Your task to perform on an android device: toggle improve location accuracy Image 0: 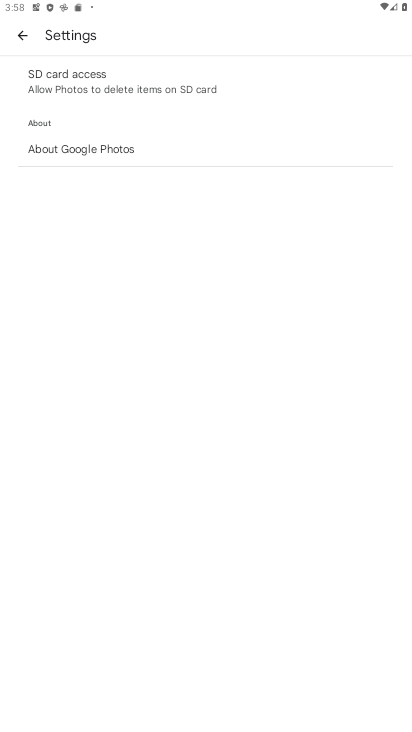
Step 0: press home button
Your task to perform on an android device: toggle improve location accuracy Image 1: 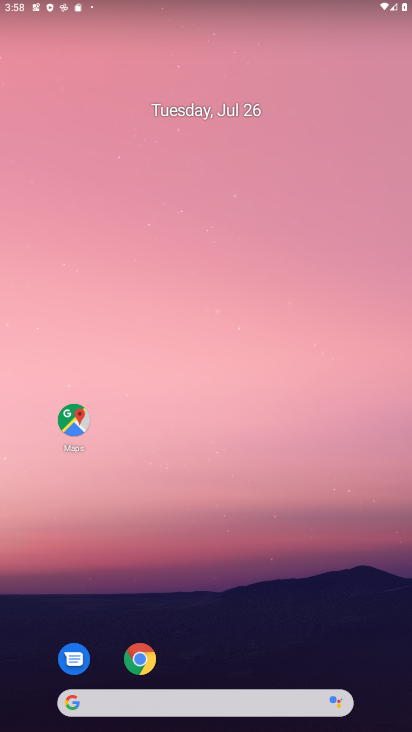
Step 1: drag from (220, 657) to (223, 158)
Your task to perform on an android device: toggle improve location accuracy Image 2: 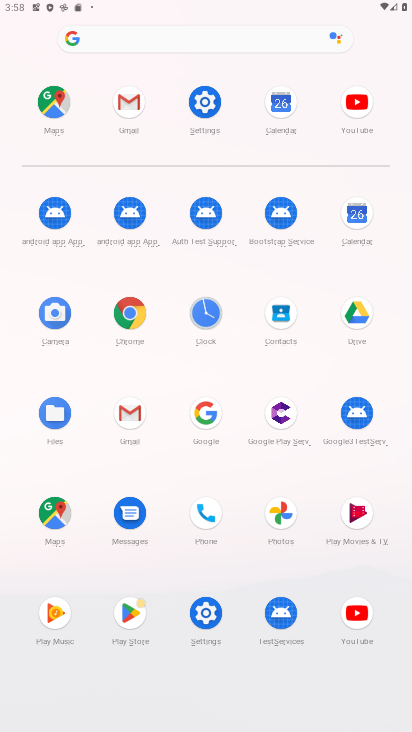
Step 2: click (198, 91)
Your task to perform on an android device: toggle improve location accuracy Image 3: 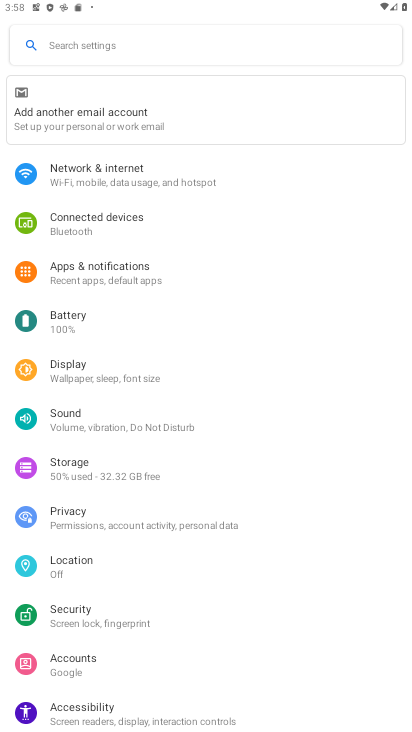
Step 3: click (82, 577)
Your task to perform on an android device: toggle improve location accuracy Image 4: 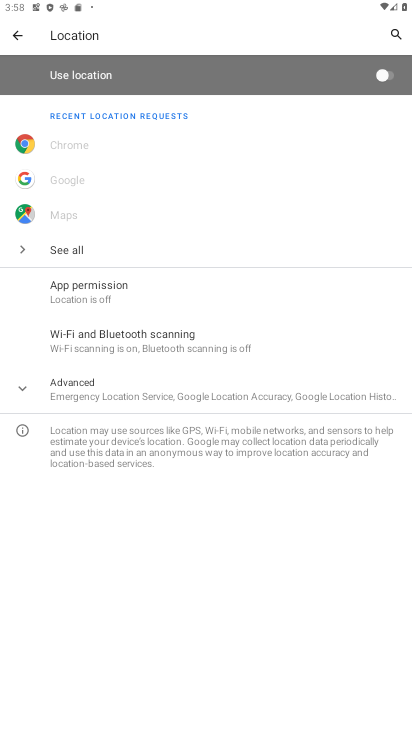
Step 4: click (162, 383)
Your task to perform on an android device: toggle improve location accuracy Image 5: 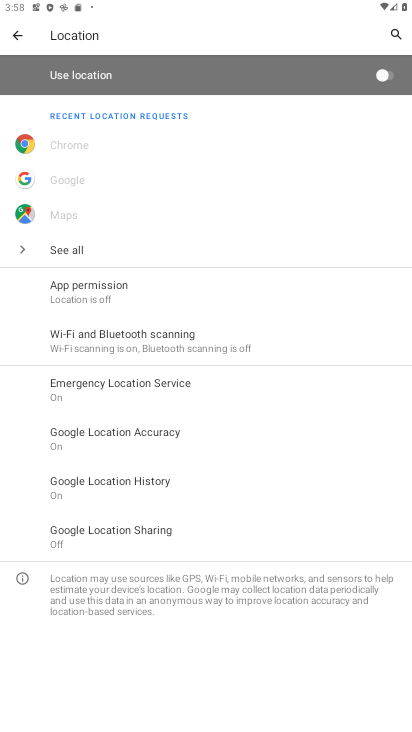
Step 5: click (161, 428)
Your task to perform on an android device: toggle improve location accuracy Image 6: 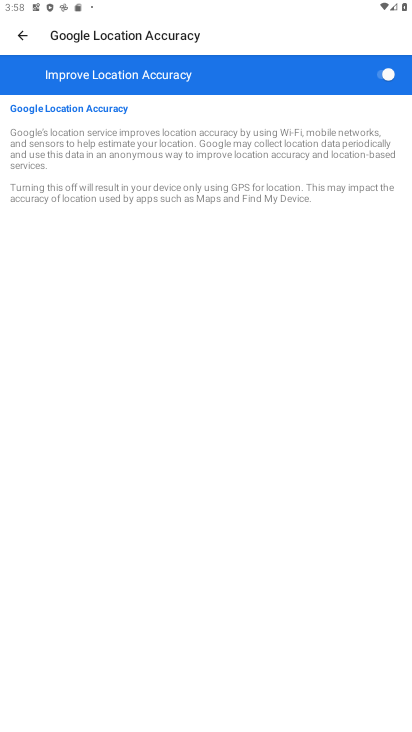
Step 6: click (374, 77)
Your task to perform on an android device: toggle improve location accuracy Image 7: 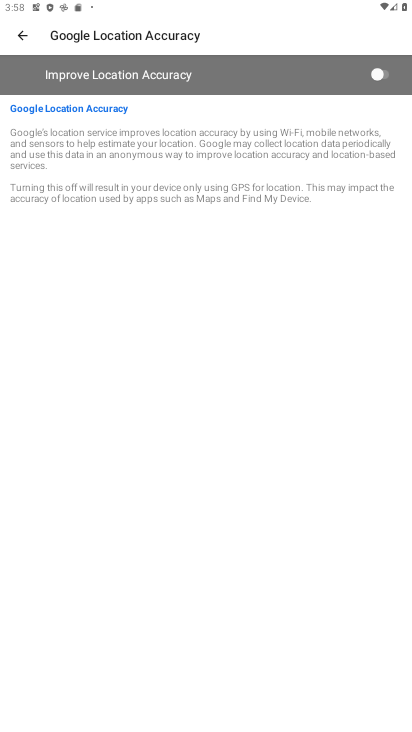
Step 7: task complete